Your task to perform on an android device: remove spam from my inbox in the gmail app Image 0: 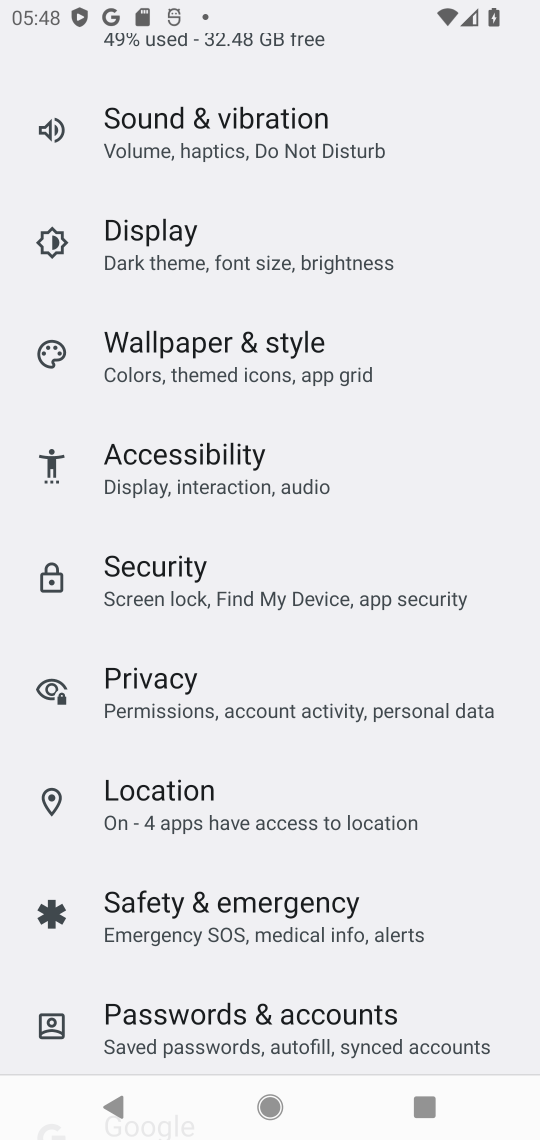
Step 0: press home button
Your task to perform on an android device: remove spam from my inbox in the gmail app Image 1: 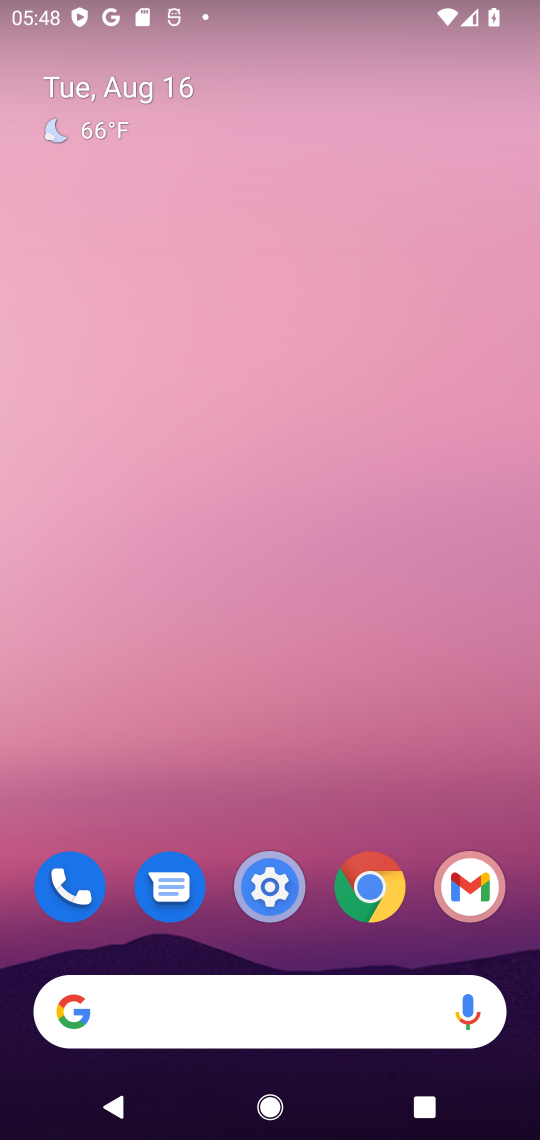
Step 1: drag from (361, 757) to (299, 117)
Your task to perform on an android device: remove spam from my inbox in the gmail app Image 2: 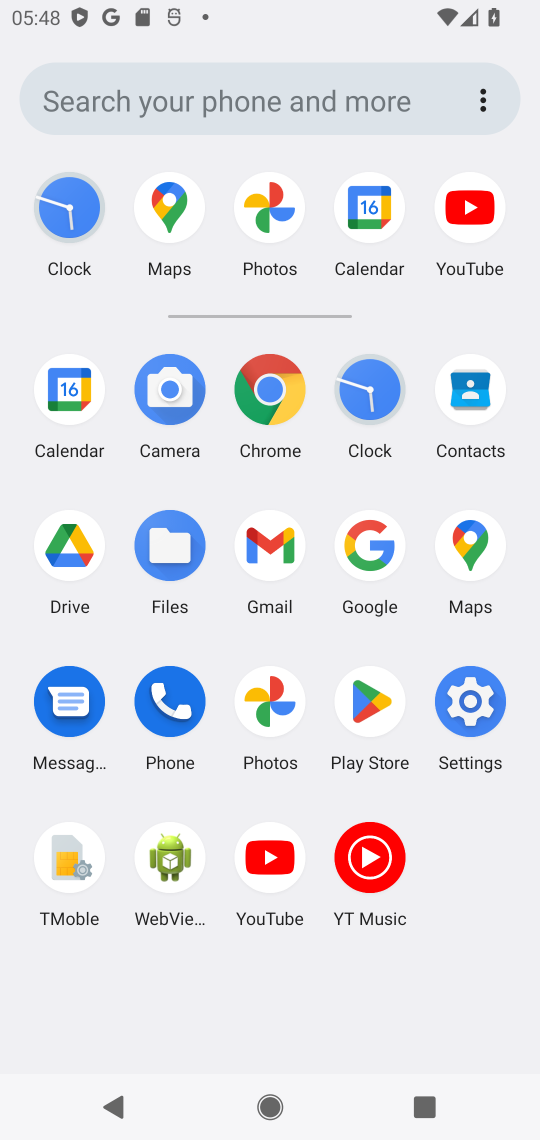
Step 2: click (268, 541)
Your task to perform on an android device: remove spam from my inbox in the gmail app Image 3: 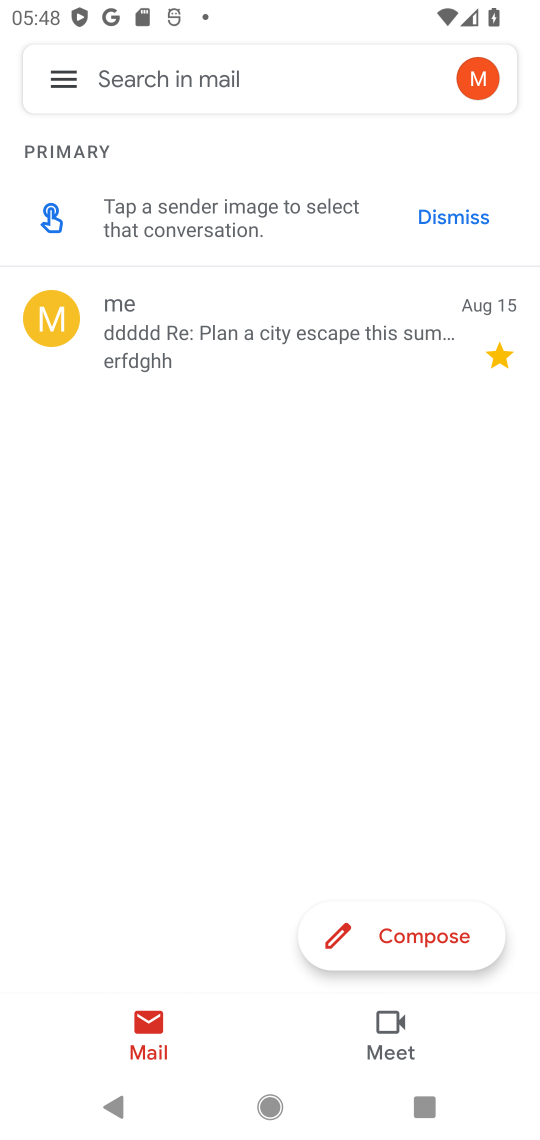
Step 3: click (55, 70)
Your task to perform on an android device: remove spam from my inbox in the gmail app Image 4: 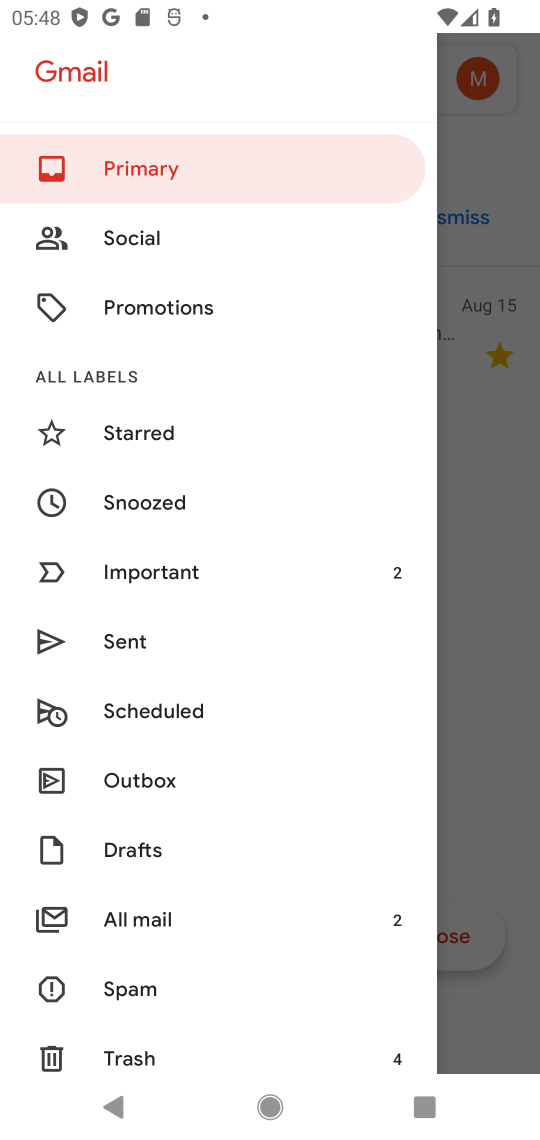
Step 4: click (470, 525)
Your task to perform on an android device: remove spam from my inbox in the gmail app Image 5: 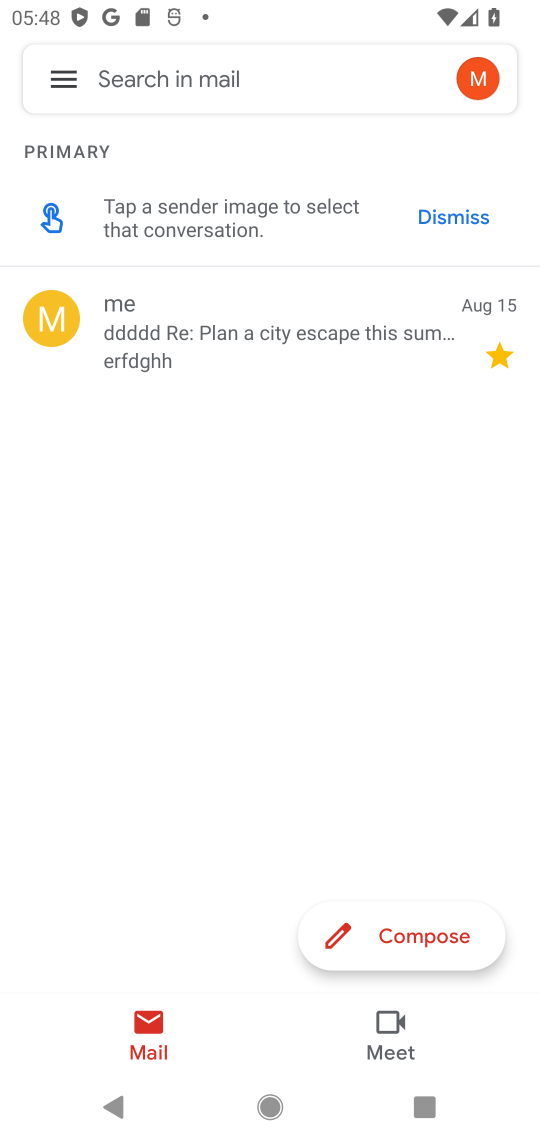
Step 5: task complete